Your task to perform on an android device: change the clock display to show seconds Image 0: 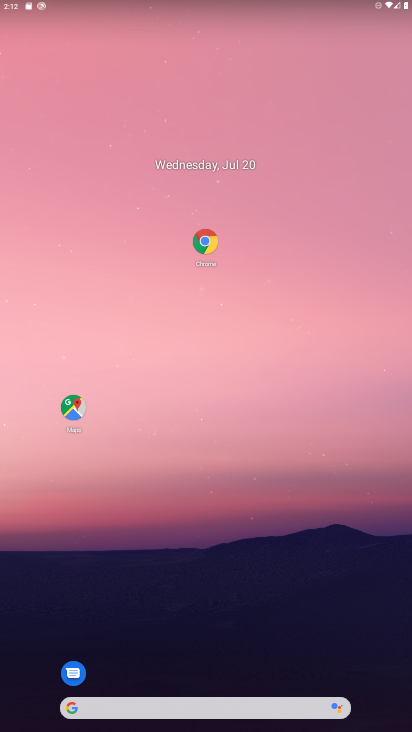
Step 0: drag from (225, 672) to (262, 100)
Your task to perform on an android device: change the clock display to show seconds Image 1: 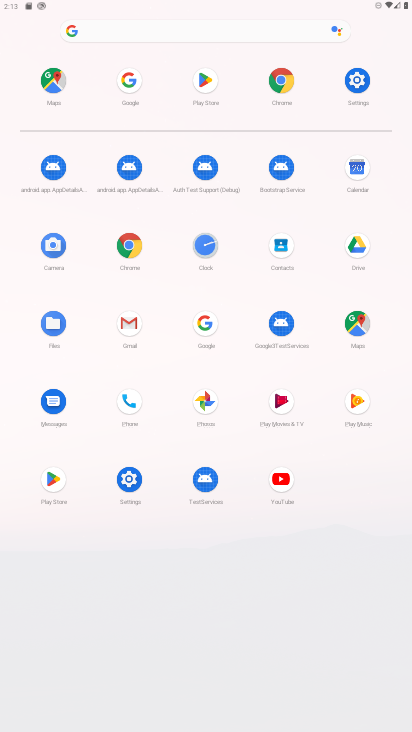
Step 1: click (208, 241)
Your task to perform on an android device: change the clock display to show seconds Image 2: 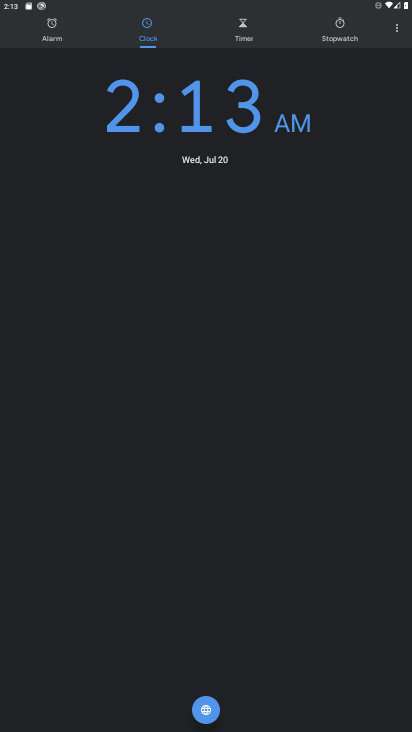
Step 2: click (391, 29)
Your task to perform on an android device: change the clock display to show seconds Image 3: 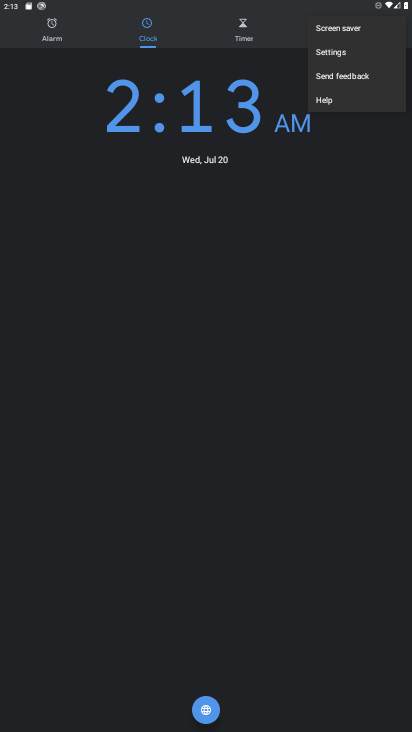
Step 3: click (342, 54)
Your task to perform on an android device: change the clock display to show seconds Image 4: 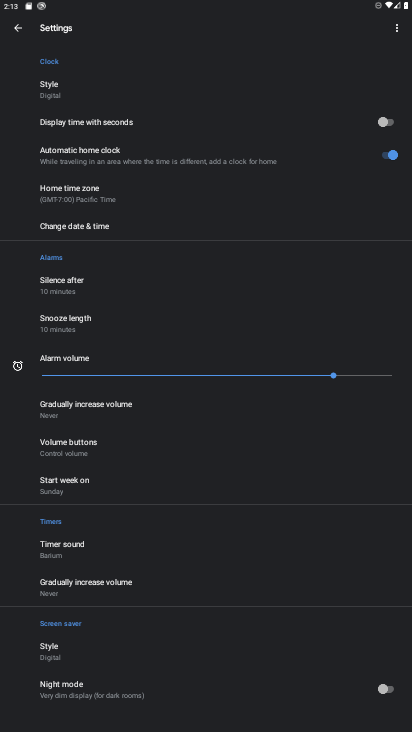
Step 4: click (387, 118)
Your task to perform on an android device: change the clock display to show seconds Image 5: 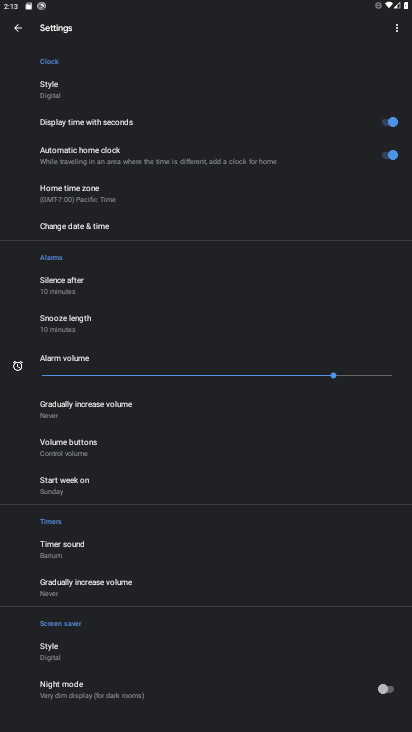
Step 5: task complete